Your task to perform on an android device: change the upload size in google photos Image 0: 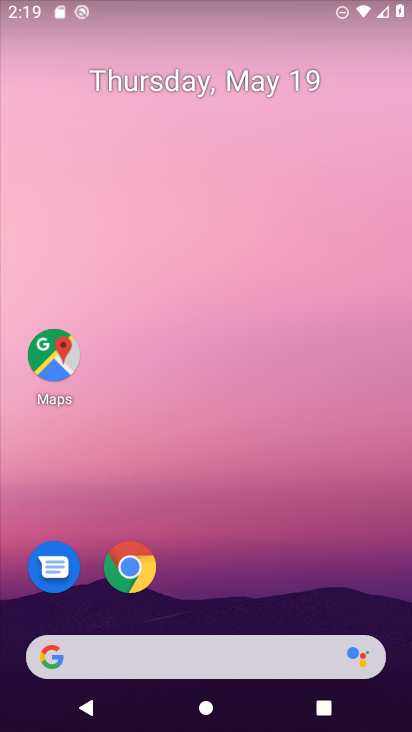
Step 0: drag from (238, 525) to (240, 117)
Your task to perform on an android device: change the upload size in google photos Image 1: 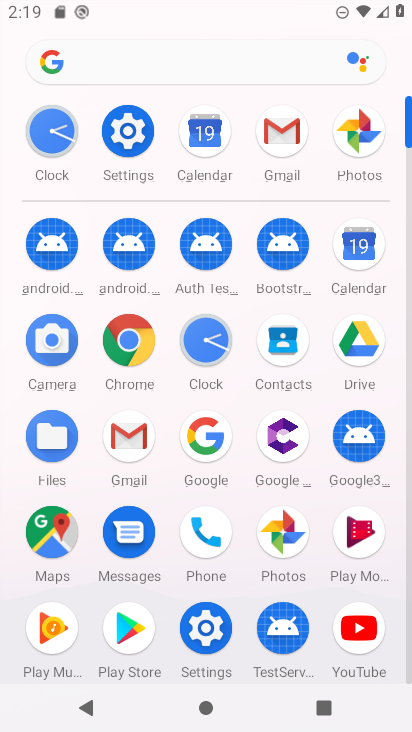
Step 1: click (350, 125)
Your task to perform on an android device: change the upload size in google photos Image 2: 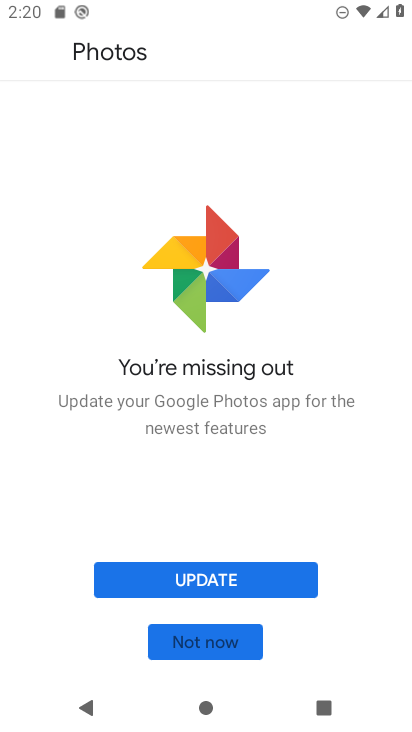
Step 2: click (238, 647)
Your task to perform on an android device: change the upload size in google photos Image 3: 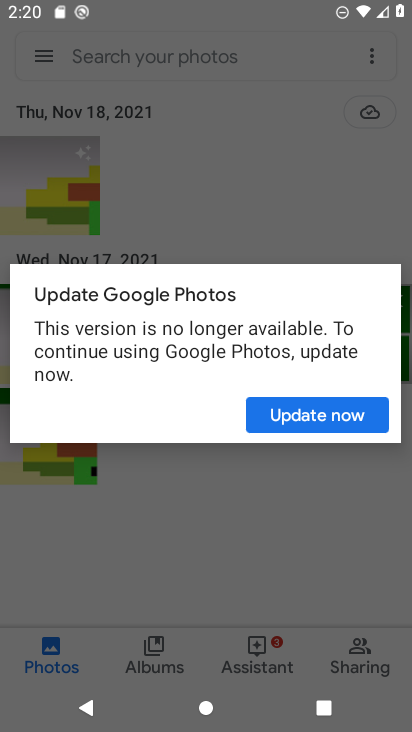
Step 3: click (357, 417)
Your task to perform on an android device: change the upload size in google photos Image 4: 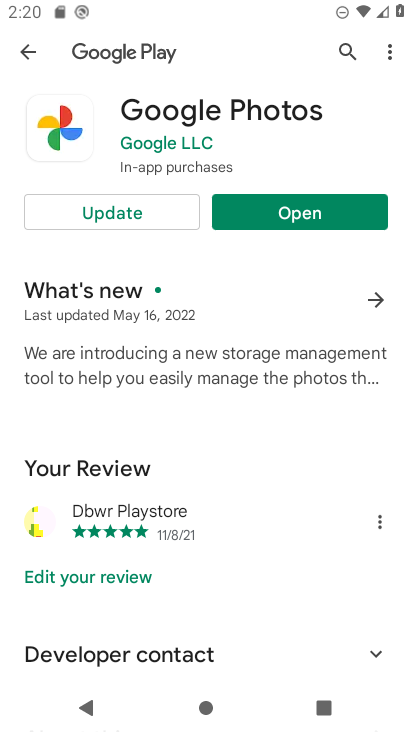
Step 4: click (296, 216)
Your task to perform on an android device: change the upload size in google photos Image 5: 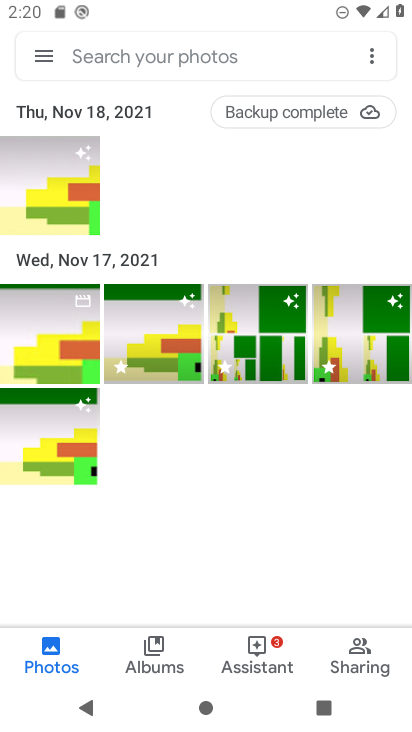
Step 5: click (44, 47)
Your task to perform on an android device: change the upload size in google photos Image 6: 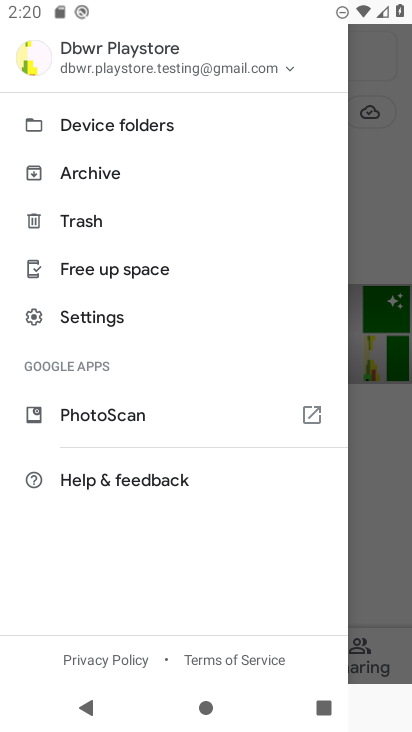
Step 6: click (102, 302)
Your task to perform on an android device: change the upload size in google photos Image 7: 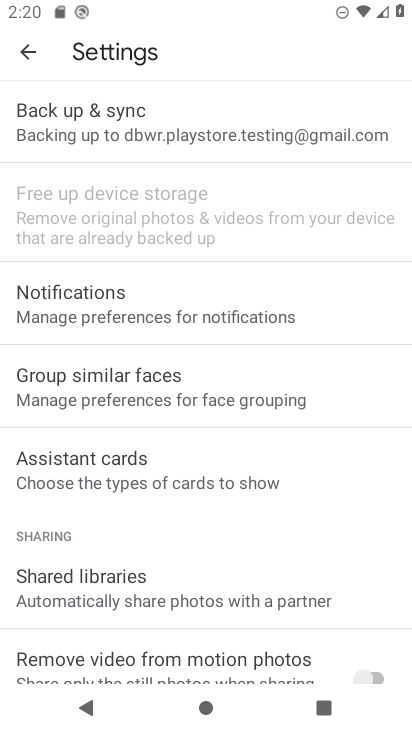
Step 7: click (228, 126)
Your task to perform on an android device: change the upload size in google photos Image 8: 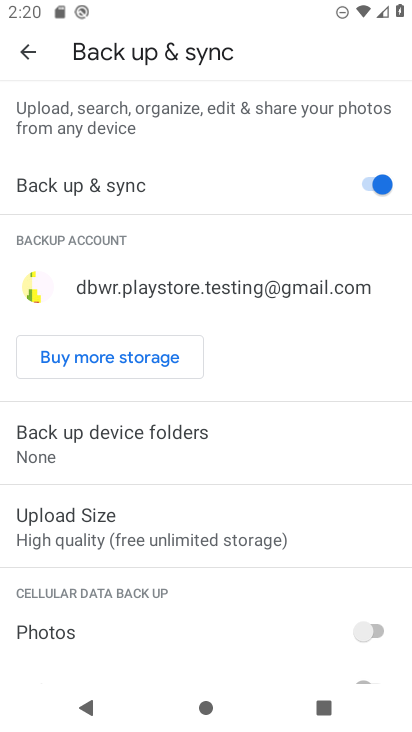
Step 8: task complete